Your task to perform on an android device: Go to Reddit.com Image 0: 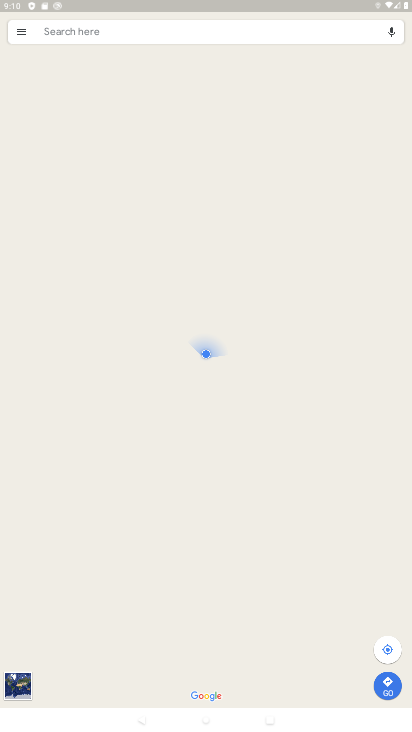
Step 0: press home button
Your task to perform on an android device: Go to Reddit.com Image 1: 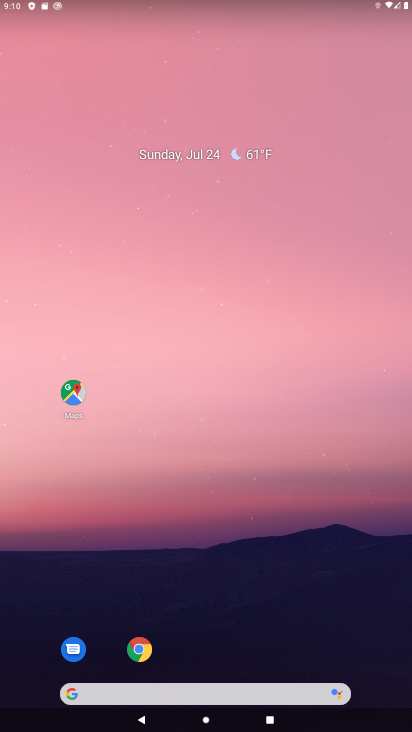
Step 1: drag from (268, 630) to (159, 107)
Your task to perform on an android device: Go to Reddit.com Image 2: 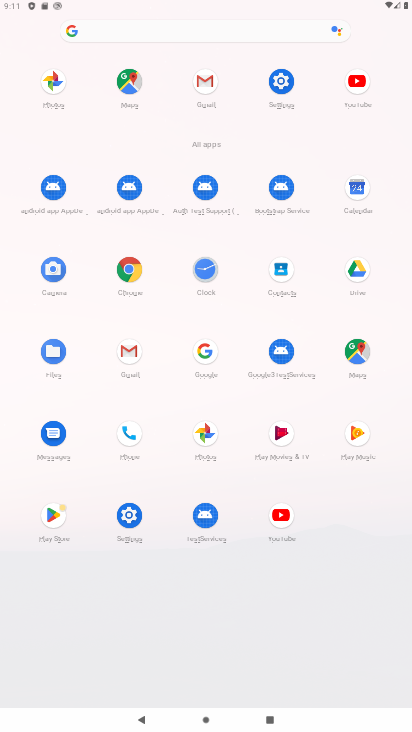
Step 2: click (127, 274)
Your task to perform on an android device: Go to Reddit.com Image 3: 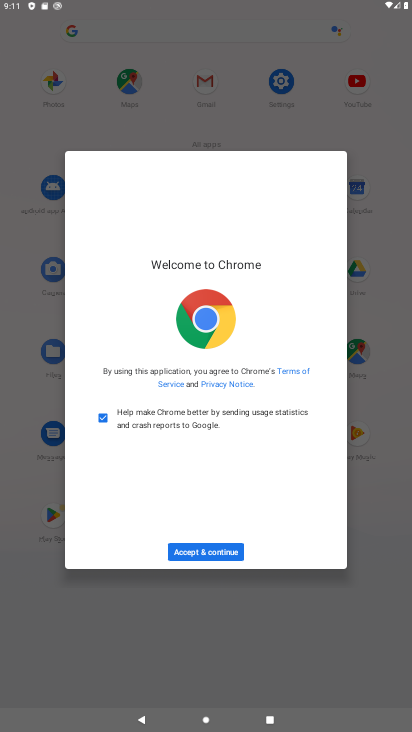
Step 3: click (218, 542)
Your task to perform on an android device: Go to Reddit.com Image 4: 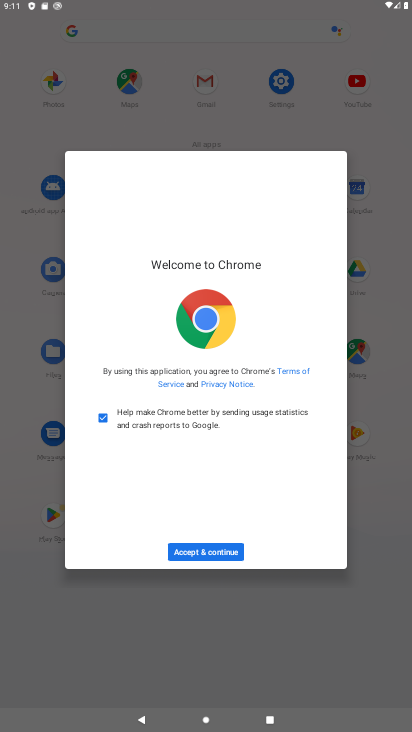
Step 4: click (224, 556)
Your task to perform on an android device: Go to Reddit.com Image 5: 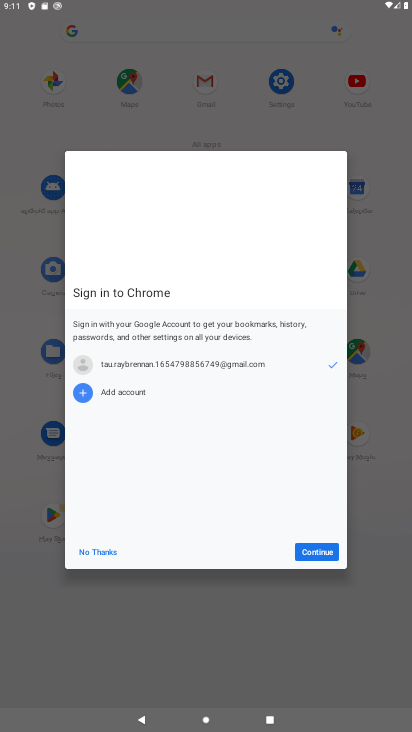
Step 5: click (317, 554)
Your task to perform on an android device: Go to Reddit.com Image 6: 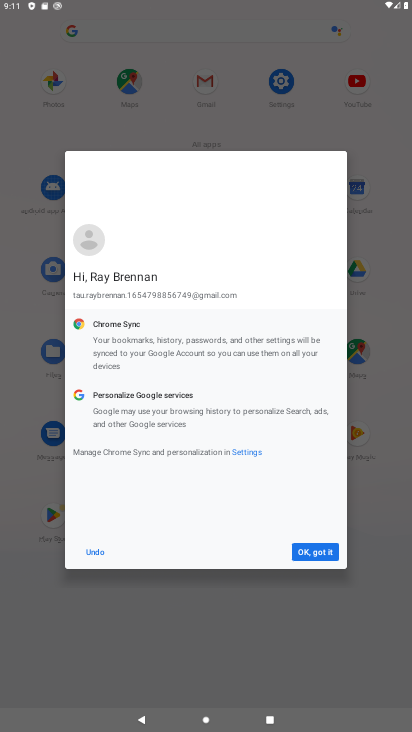
Step 6: click (317, 554)
Your task to perform on an android device: Go to Reddit.com Image 7: 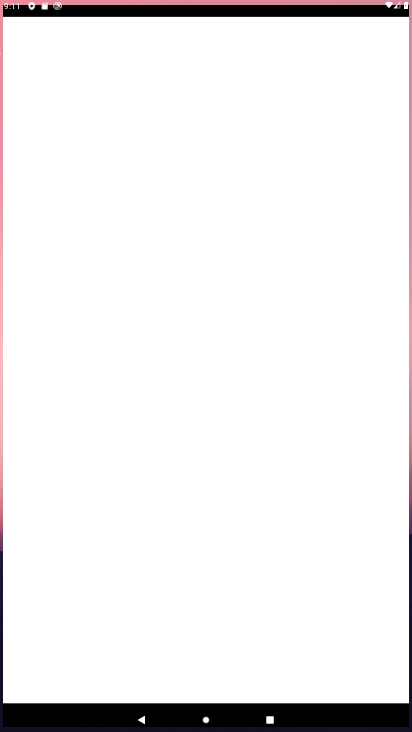
Step 7: click (320, 545)
Your task to perform on an android device: Go to Reddit.com Image 8: 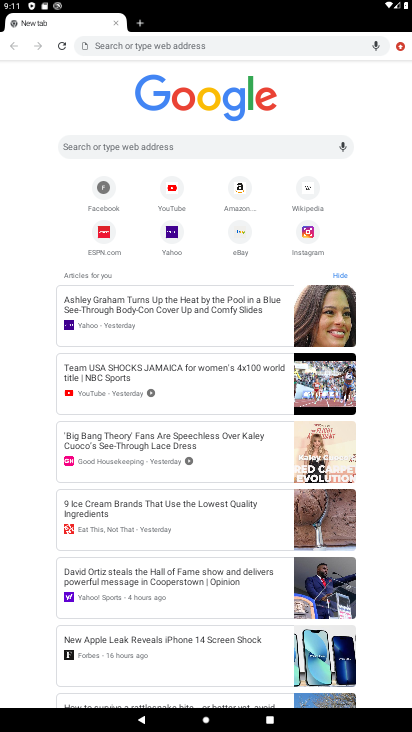
Step 8: click (248, 47)
Your task to perform on an android device: Go to Reddit.com Image 9: 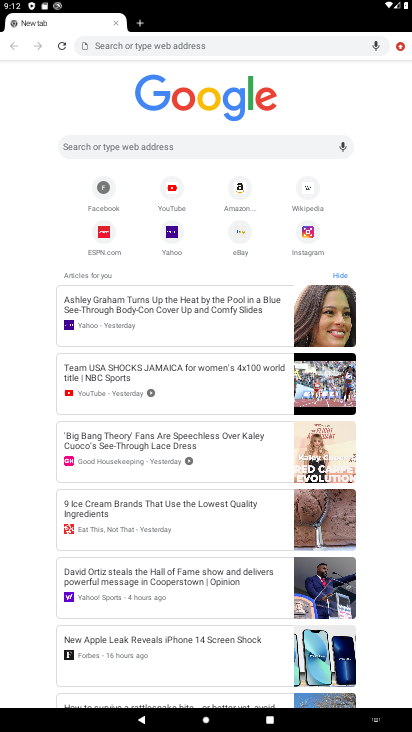
Step 9: type "reddit.com"
Your task to perform on an android device: Go to Reddit.com Image 10: 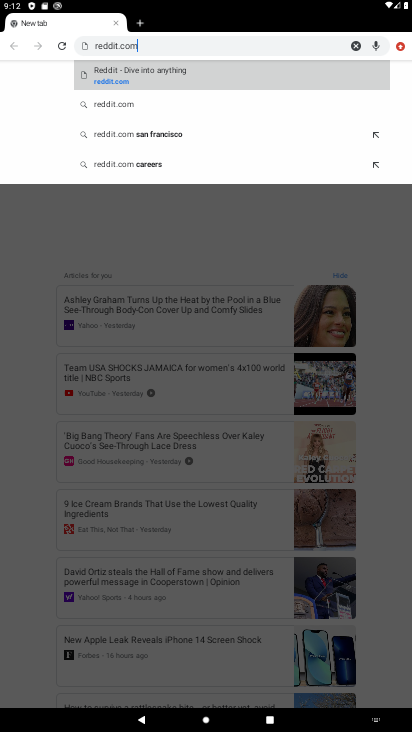
Step 10: click (165, 69)
Your task to perform on an android device: Go to Reddit.com Image 11: 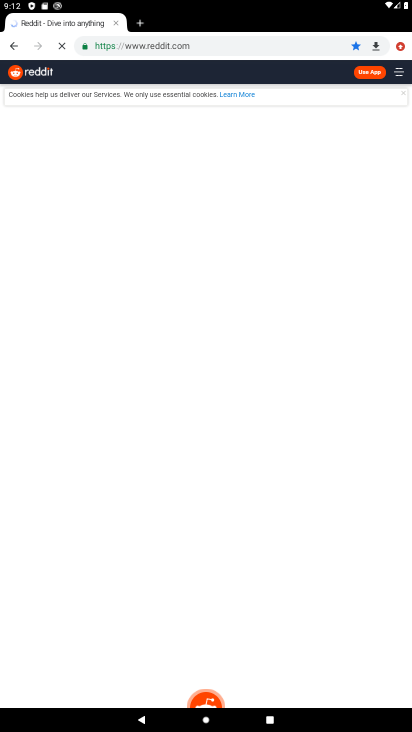
Step 11: task complete